Your task to perform on an android device: Open settings Image 0: 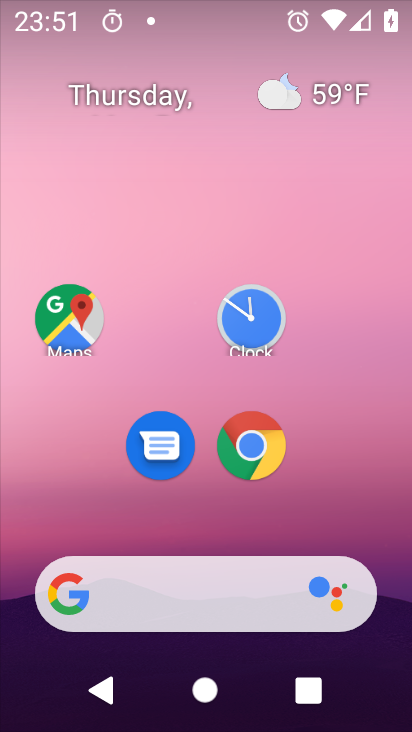
Step 0: drag from (215, 562) to (176, 67)
Your task to perform on an android device: Open settings Image 1: 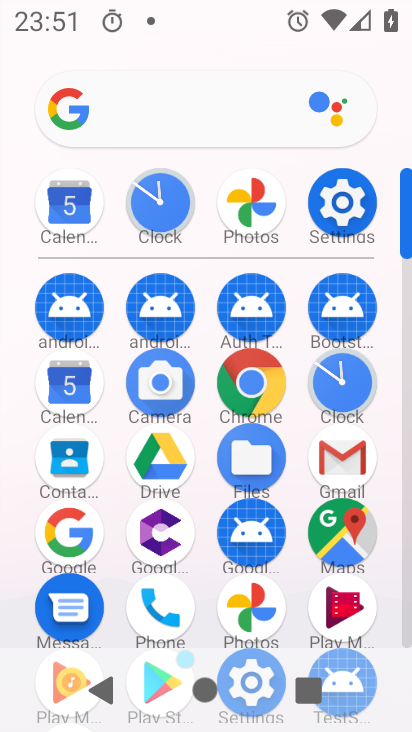
Step 1: click (334, 183)
Your task to perform on an android device: Open settings Image 2: 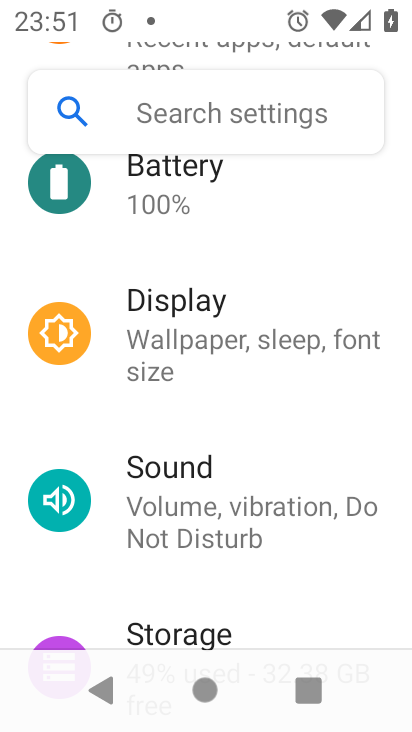
Step 2: task complete